Your task to perform on an android device: Open privacy settings Image 0: 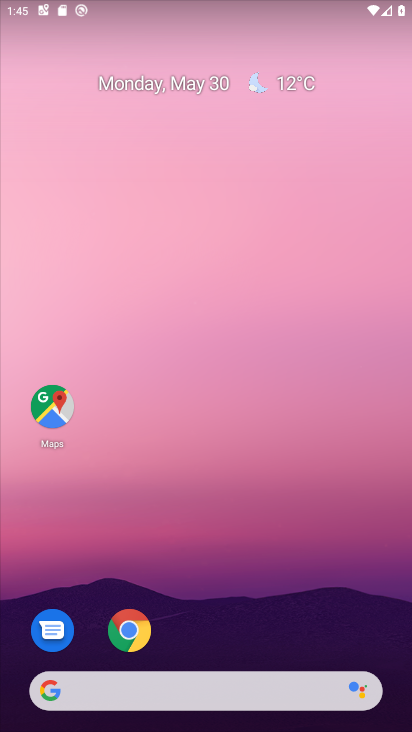
Step 0: drag from (221, 676) to (252, 210)
Your task to perform on an android device: Open privacy settings Image 1: 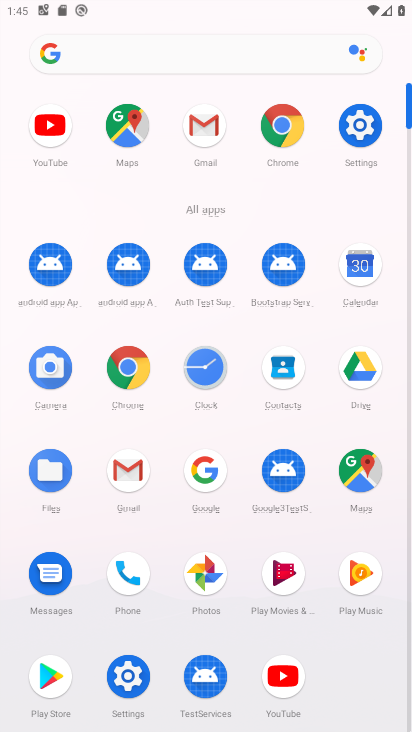
Step 1: click (369, 137)
Your task to perform on an android device: Open privacy settings Image 2: 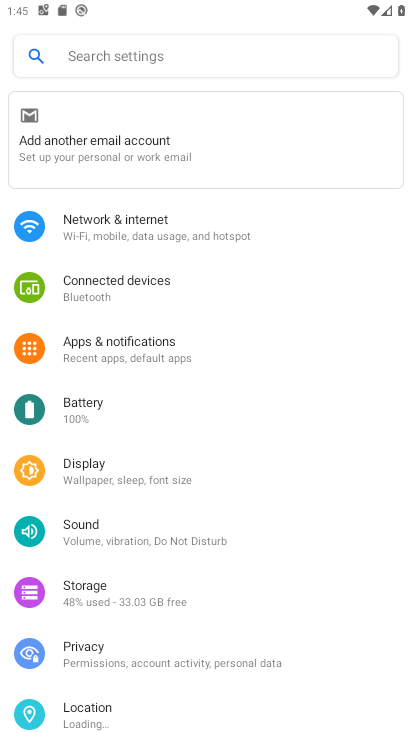
Step 2: drag from (138, 647) to (197, 64)
Your task to perform on an android device: Open privacy settings Image 3: 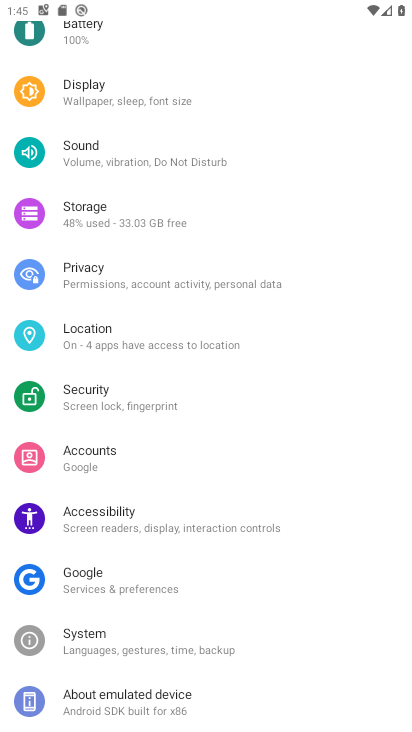
Step 3: click (94, 281)
Your task to perform on an android device: Open privacy settings Image 4: 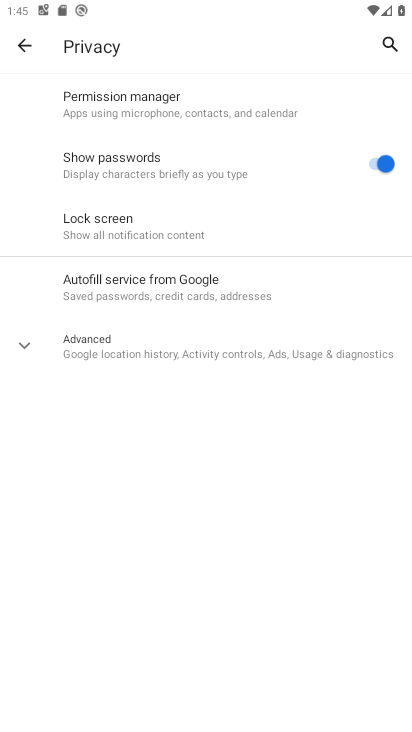
Step 4: click (128, 290)
Your task to perform on an android device: Open privacy settings Image 5: 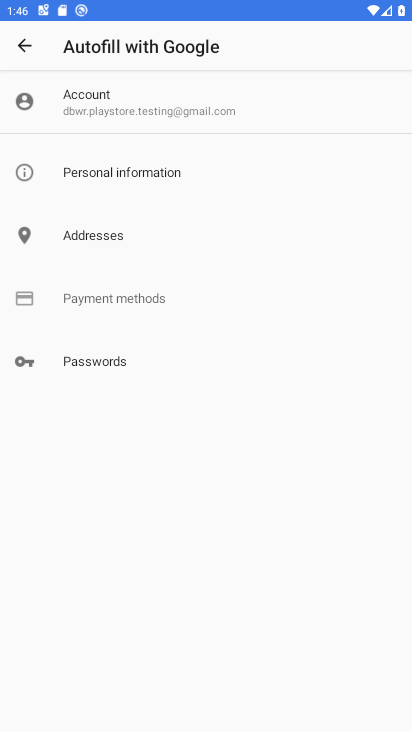
Step 5: press back button
Your task to perform on an android device: Open privacy settings Image 6: 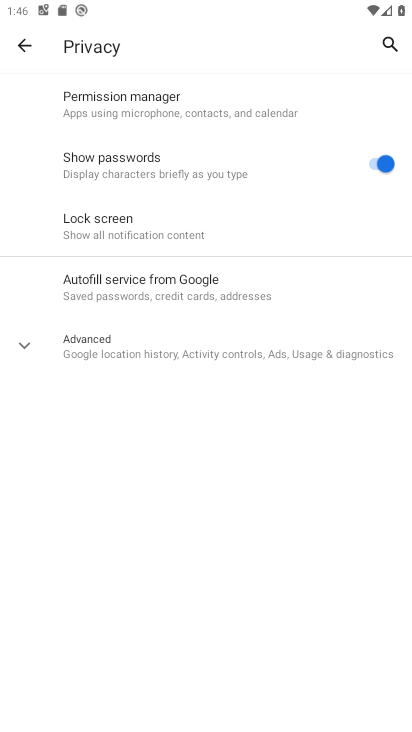
Step 6: press home button
Your task to perform on an android device: Open privacy settings Image 7: 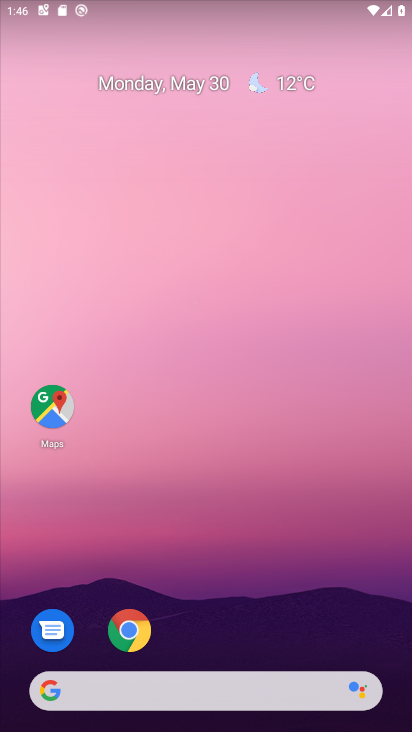
Step 7: drag from (217, 716) to (258, 273)
Your task to perform on an android device: Open privacy settings Image 8: 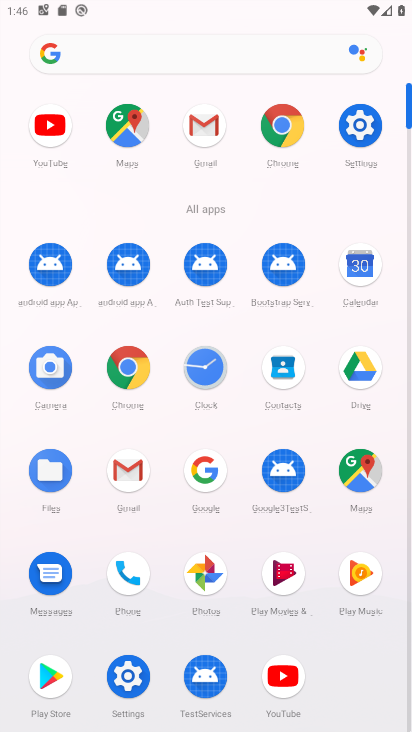
Step 8: click (344, 141)
Your task to perform on an android device: Open privacy settings Image 9: 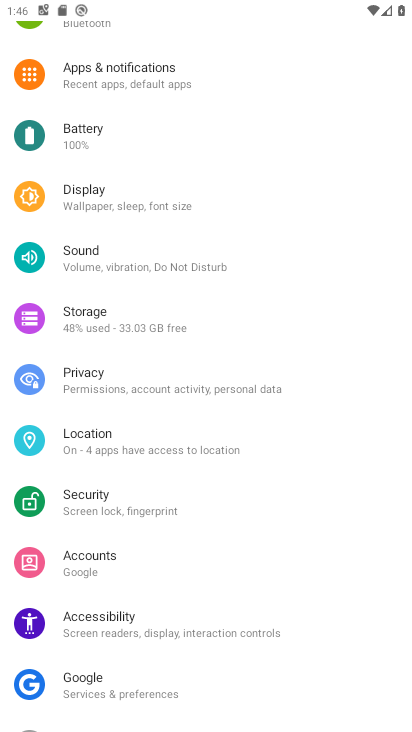
Step 9: click (112, 384)
Your task to perform on an android device: Open privacy settings Image 10: 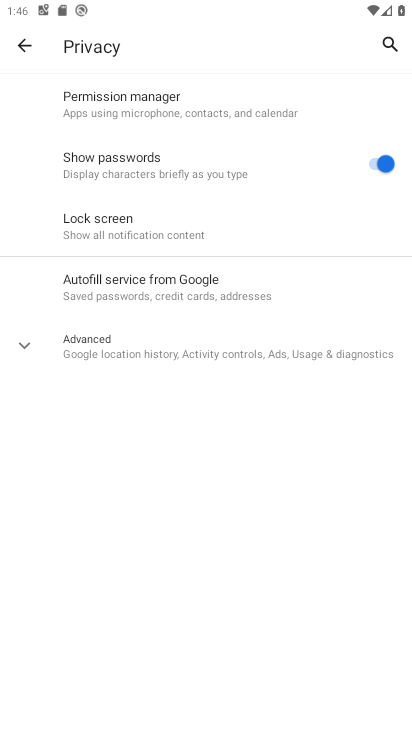
Step 10: task complete